Your task to perform on an android device: toggle notifications settings in the gmail app Image 0: 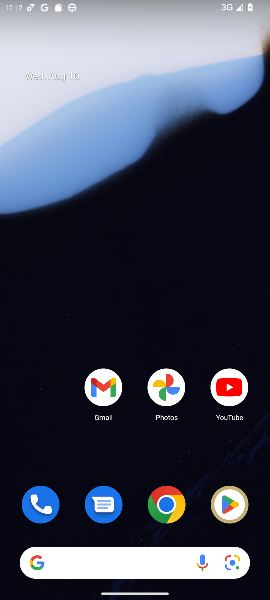
Step 0: press home button
Your task to perform on an android device: toggle notifications settings in the gmail app Image 1: 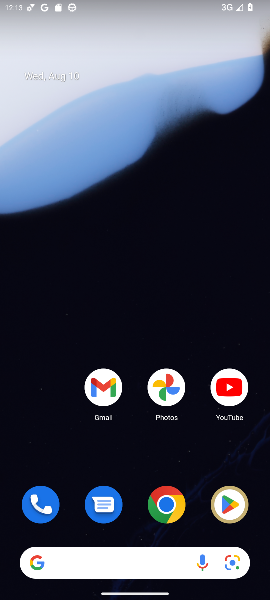
Step 1: click (106, 392)
Your task to perform on an android device: toggle notifications settings in the gmail app Image 2: 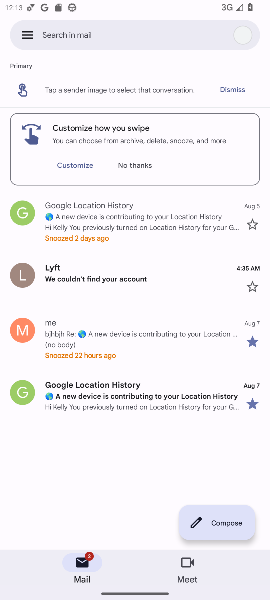
Step 2: click (30, 38)
Your task to perform on an android device: toggle notifications settings in the gmail app Image 3: 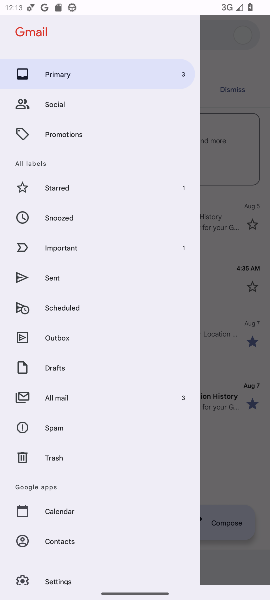
Step 3: click (61, 578)
Your task to perform on an android device: toggle notifications settings in the gmail app Image 4: 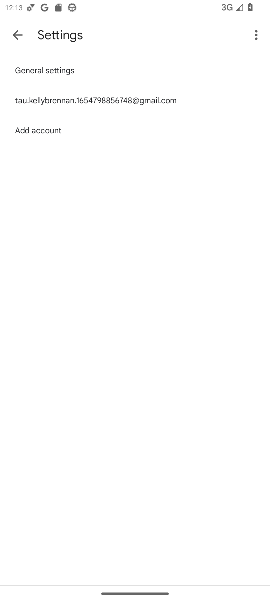
Step 4: click (60, 103)
Your task to perform on an android device: toggle notifications settings in the gmail app Image 5: 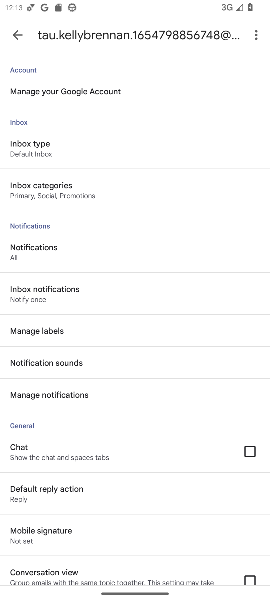
Step 5: click (35, 397)
Your task to perform on an android device: toggle notifications settings in the gmail app Image 6: 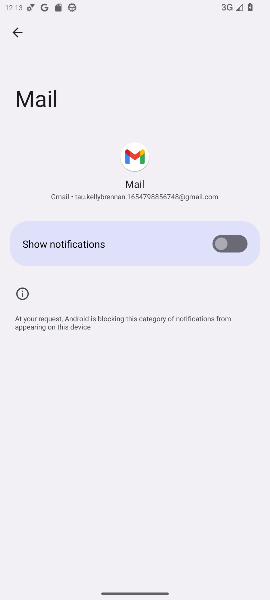
Step 6: click (220, 243)
Your task to perform on an android device: toggle notifications settings in the gmail app Image 7: 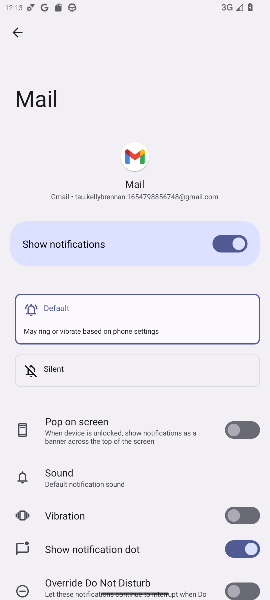
Step 7: task complete